Your task to perform on an android device: set the stopwatch Image 0: 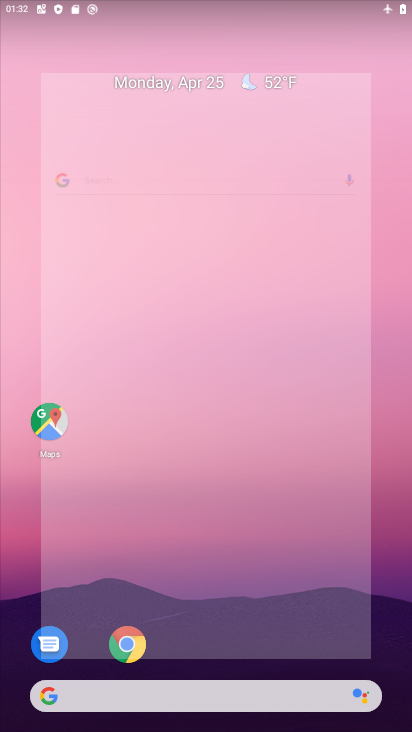
Step 0: drag from (272, 644) to (236, 245)
Your task to perform on an android device: set the stopwatch Image 1: 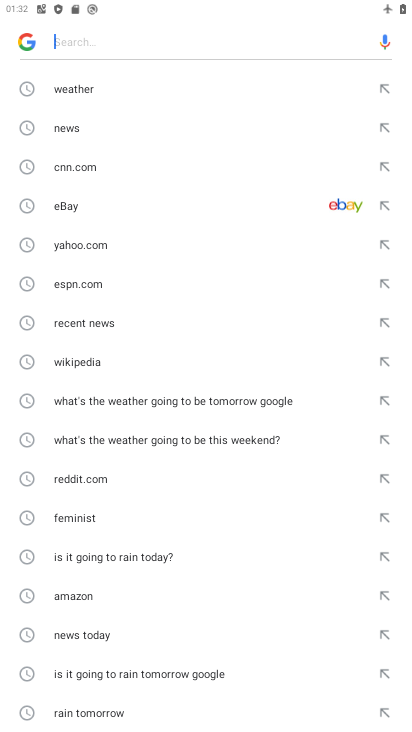
Step 1: press back button
Your task to perform on an android device: set the stopwatch Image 2: 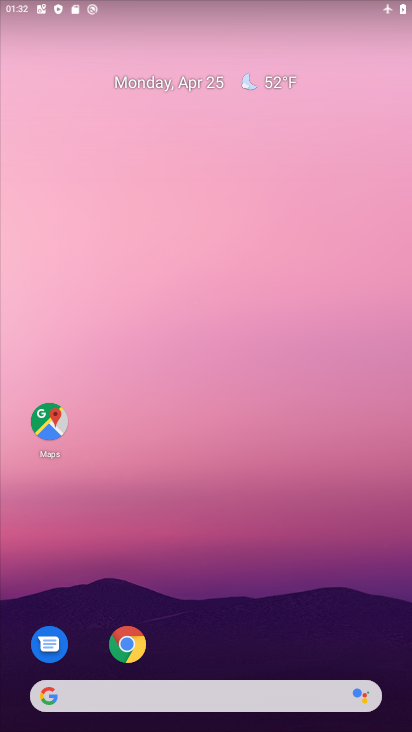
Step 2: drag from (267, 632) to (283, 40)
Your task to perform on an android device: set the stopwatch Image 3: 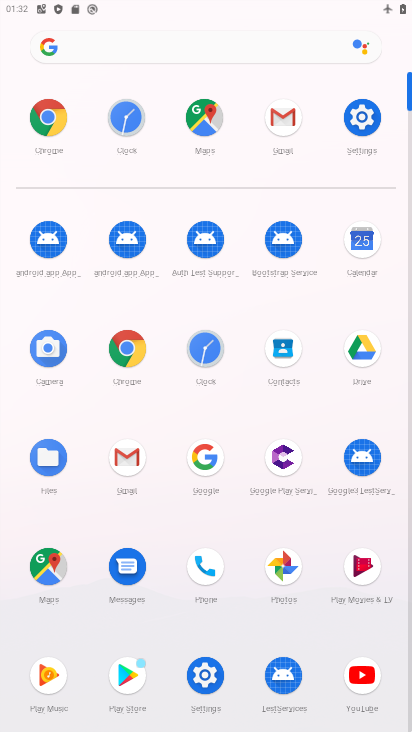
Step 3: click (193, 354)
Your task to perform on an android device: set the stopwatch Image 4: 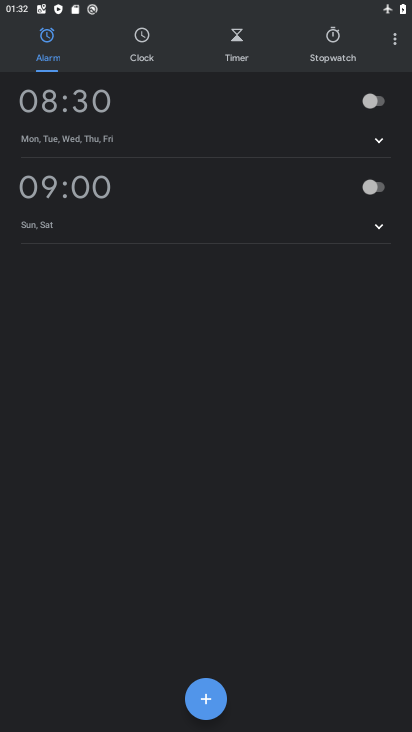
Step 4: click (326, 38)
Your task to perform on an android device: set the stopwatch Image 5: 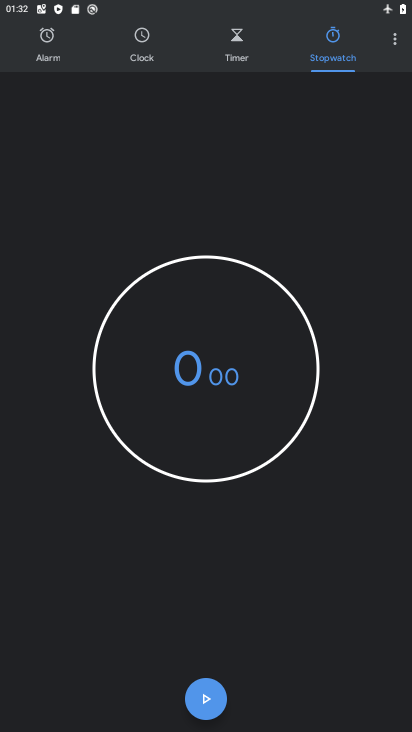
Step 5: task complete